Your task to perform on an android device: Open the map Image 0: 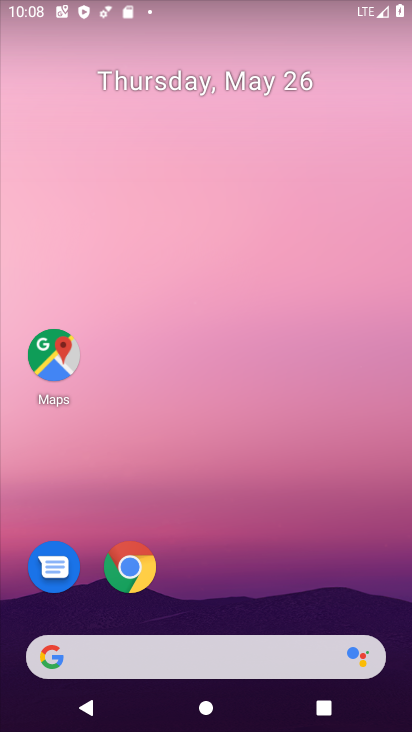
Step 0: click (68, 350)
Your task to perform on an android device: Open the map Image 1: 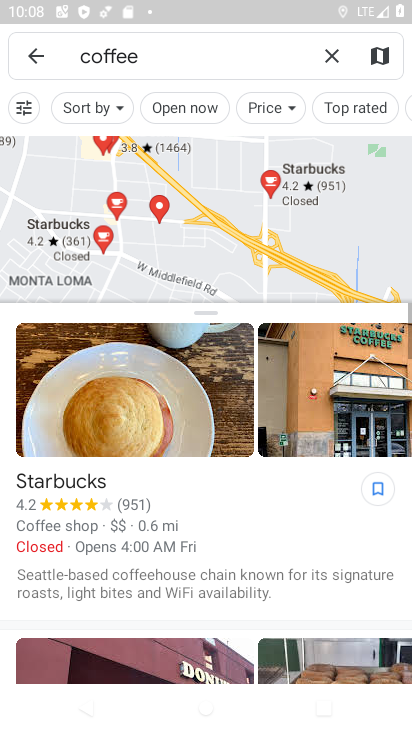
Step 1: task complete